Your task to perform on an android device: What's the weather? Image 0: 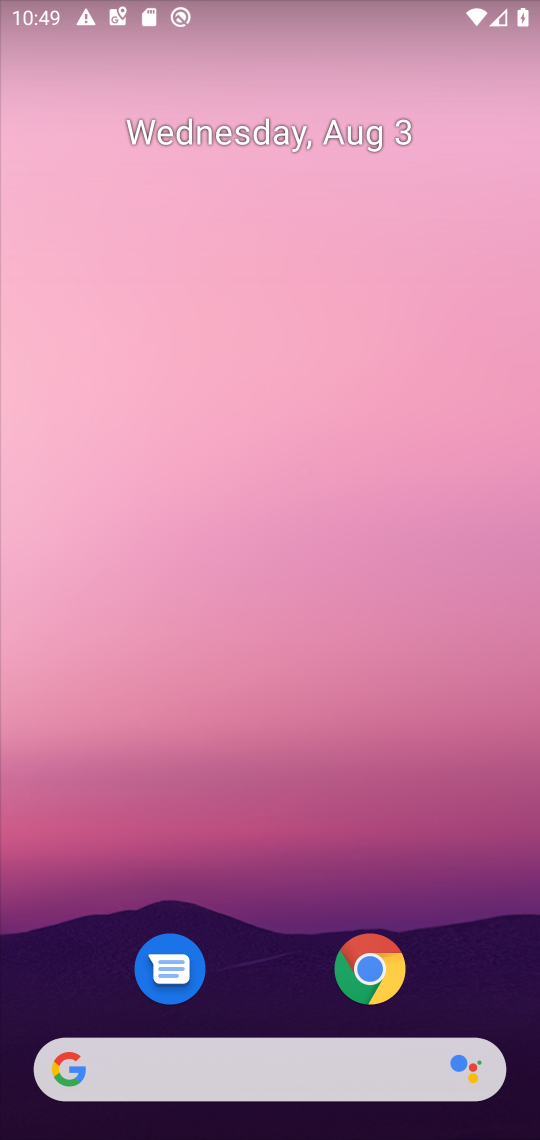
Step 0: click (256, 1053)
Your task to perform on an android device: What's the weather? Image 1: 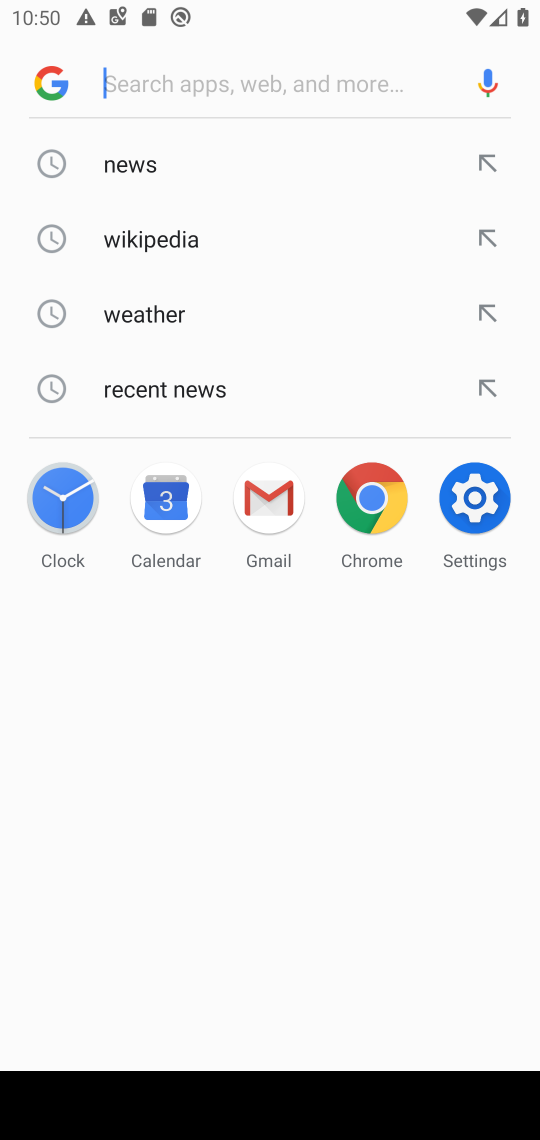
Step 1: click (79, 310)
Your task to perform on an android device: What's the weather? Image 2: 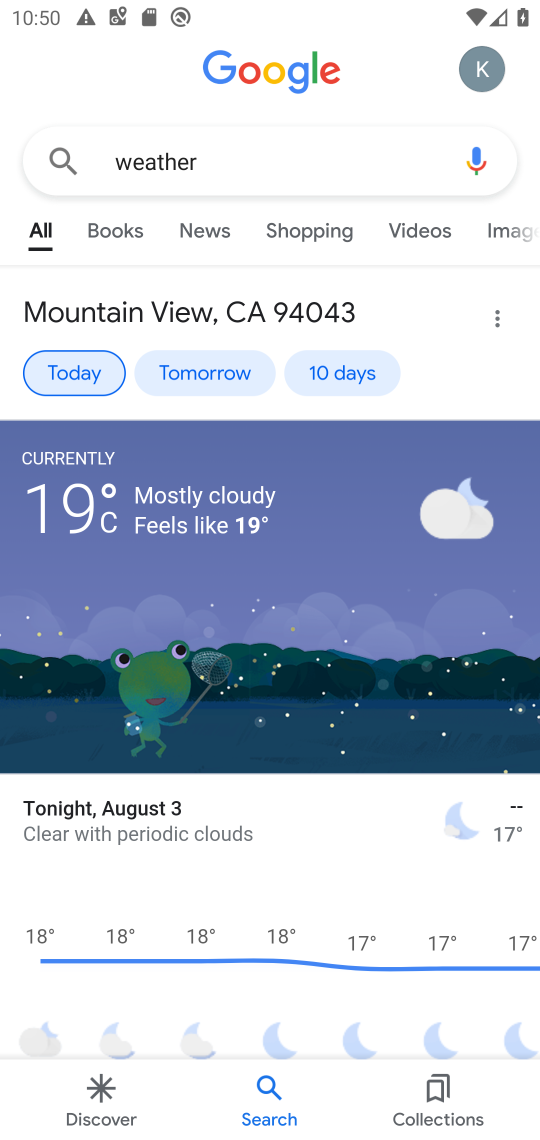
Step 2: task complete